Your task to perform on an android device: Open Chrome and go to the settings page Image 0: 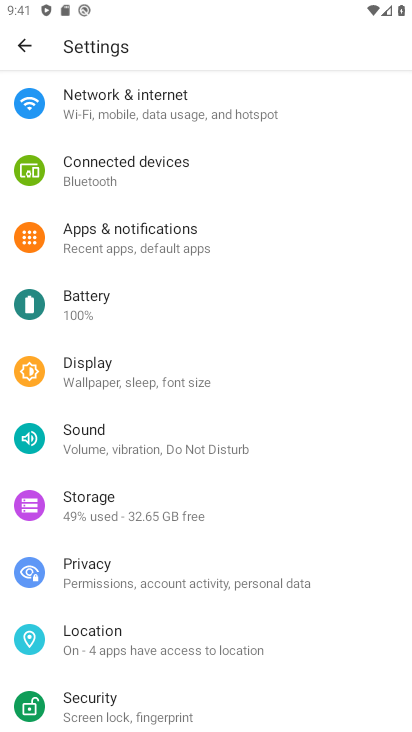
Step 0: press home button
Your task to perform on an android device: Open Chrome and go to the settings page Image 1: 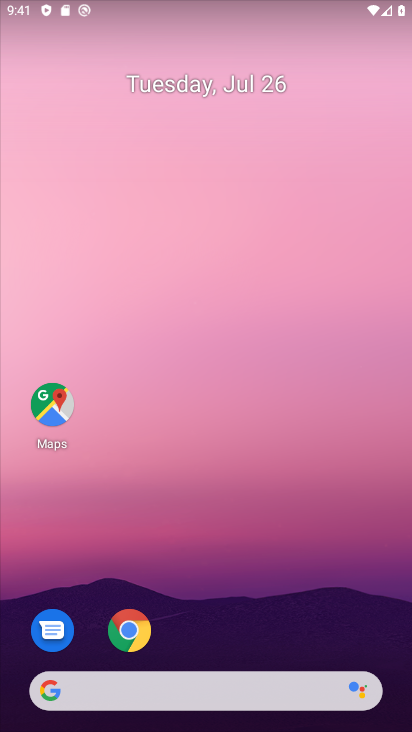
Step 1: click (130, 635)
Your task to perform on an android device: Open Chrome and go to the settings page Image 2: 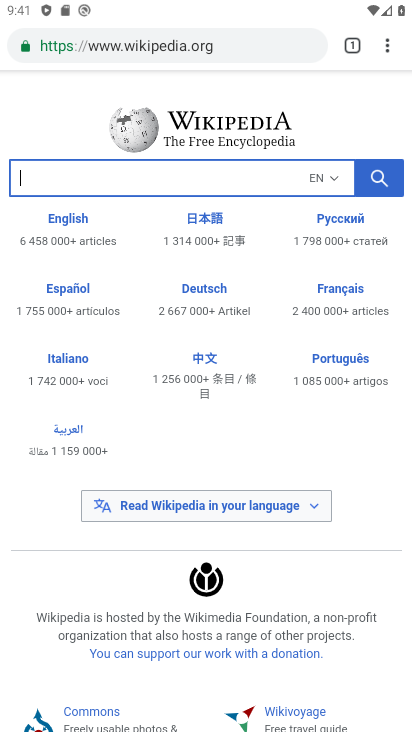
Step 2: click (388, 52)
Your task to perform on an android device: Open Chrome and go to the settings page Image 3: 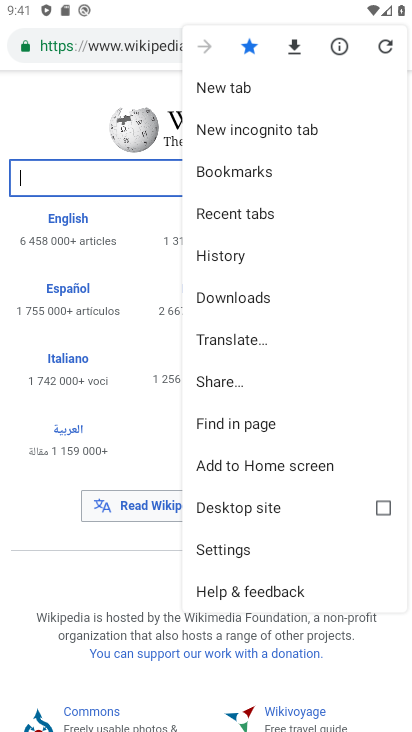
Step 3: click (233, 552)
Your task to perform on an android device: Open Chrome and go to the settings page Image 4: 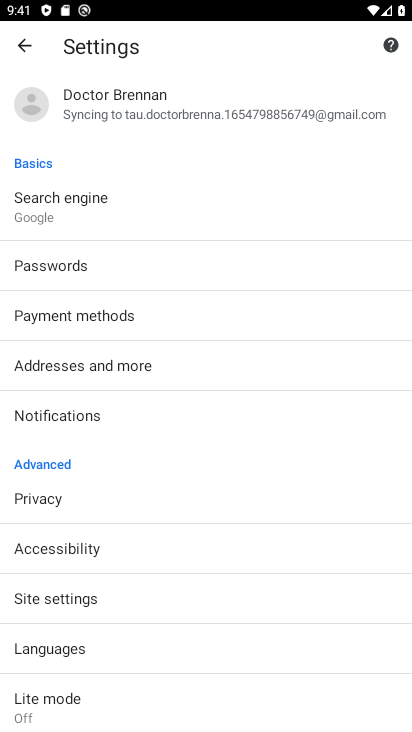
Step 4: task complete